Your task to perform on an android device: open app "DuckDuckGo Privacy Browser" (install if not already installed) and go to login screen Image 0: 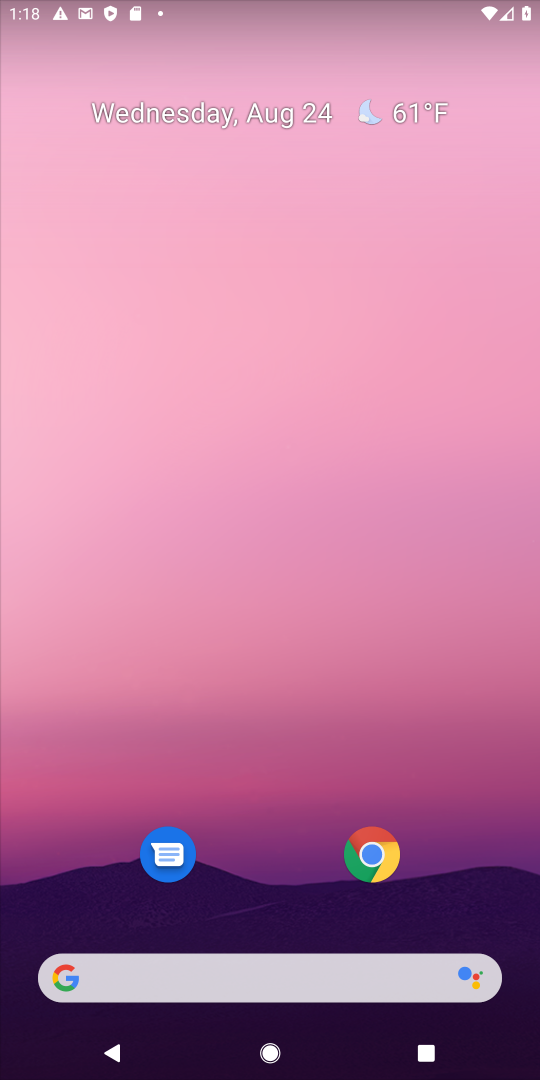
Step 0: press home button
Your task to perform on an android device: open app "DuckDuckGo Privacy Browser" (install if not already installed) and go to login screen Image 1: 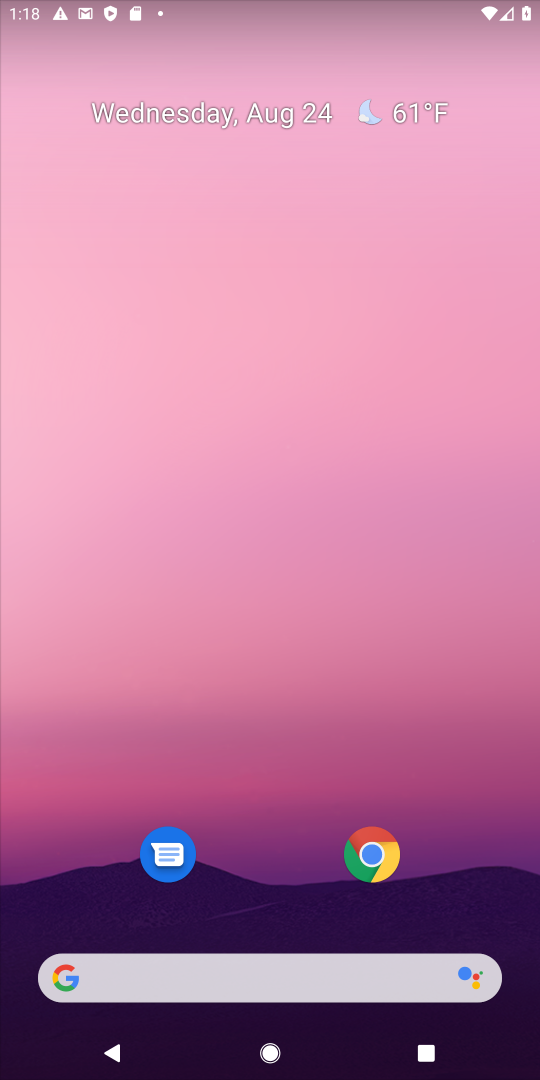
Step 1: drag from (485, 856) to (495, 180)
Your task to perform on an android device: open app "DuckDuckGo Privacy Browser" (install if not already installed) and go to login screen Image 2: 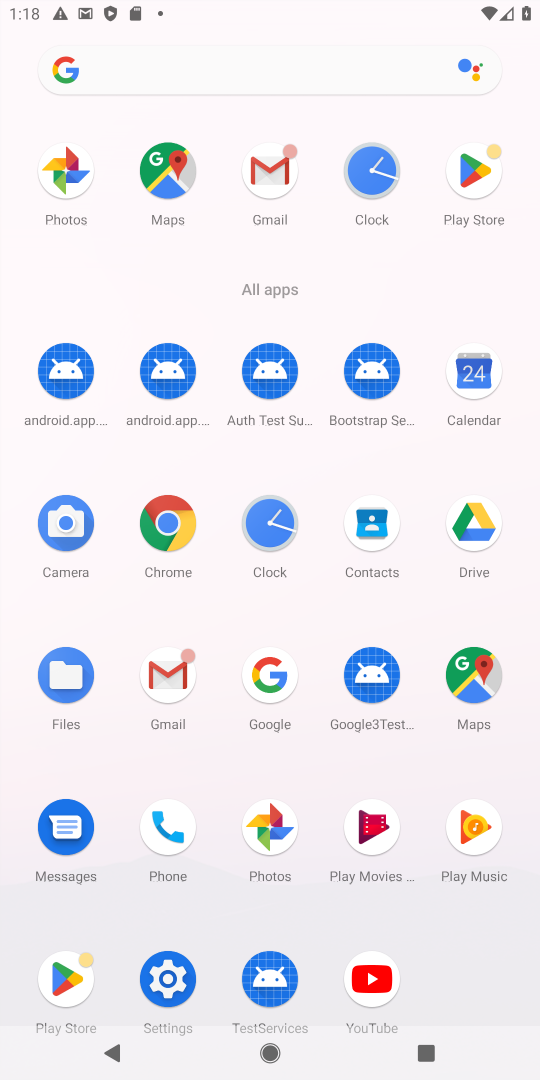
Step 2: click (480, 168)
Your task to perform on an android device: open app "DuckDuckGo Privacy Browser" (install if not already installed) and go to login screen Image 3: 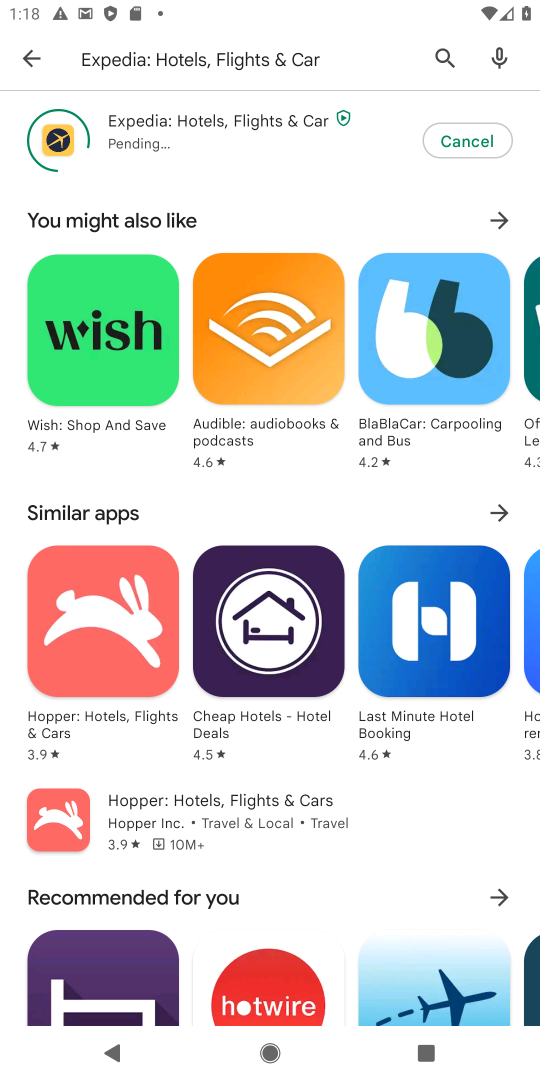
Step 3: press back button
Your task to perform on an android device: open app "DuckDuckGo Privacy Browser" (install if not already installed) and go to login screen Image 4: 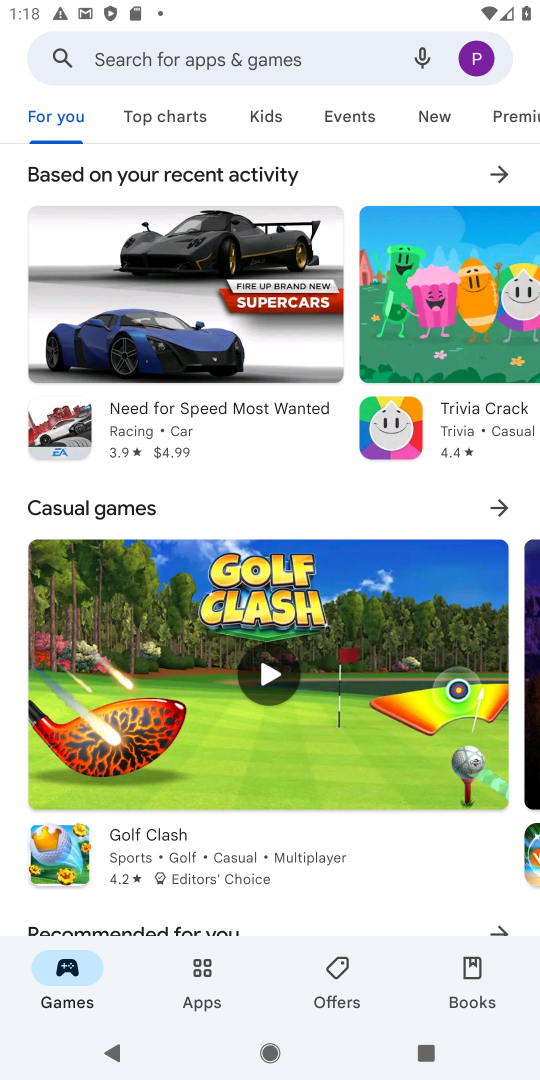
Step 4: click (289, 53)
Your task to perform on an android device: open app "DuckDuckGo Privacy Browser" (install if not already installed) and go to login screen Image 5: 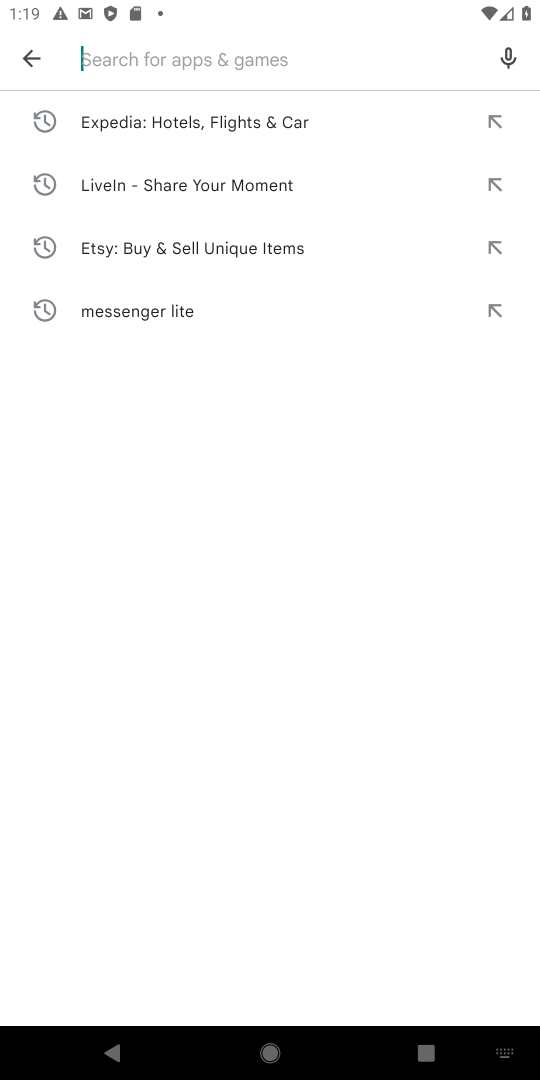
Step 5: press enter
Your task to perform on an android device: open app "DuckDuckGo Privacy Browser" (install if not already installed) and go to login screen Image 6: 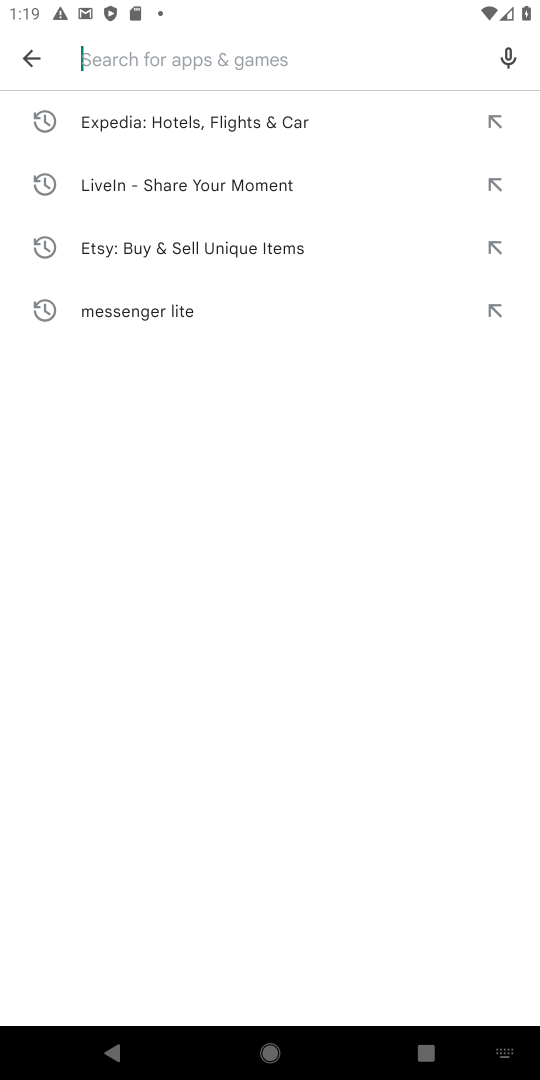
Step 6: type "DuckDuckGo Privacy Browser"
Your task to perform on an android device: open app "DuckDuckGo Privacy Browser" (install if not already installed) and go to login screen Image 7: 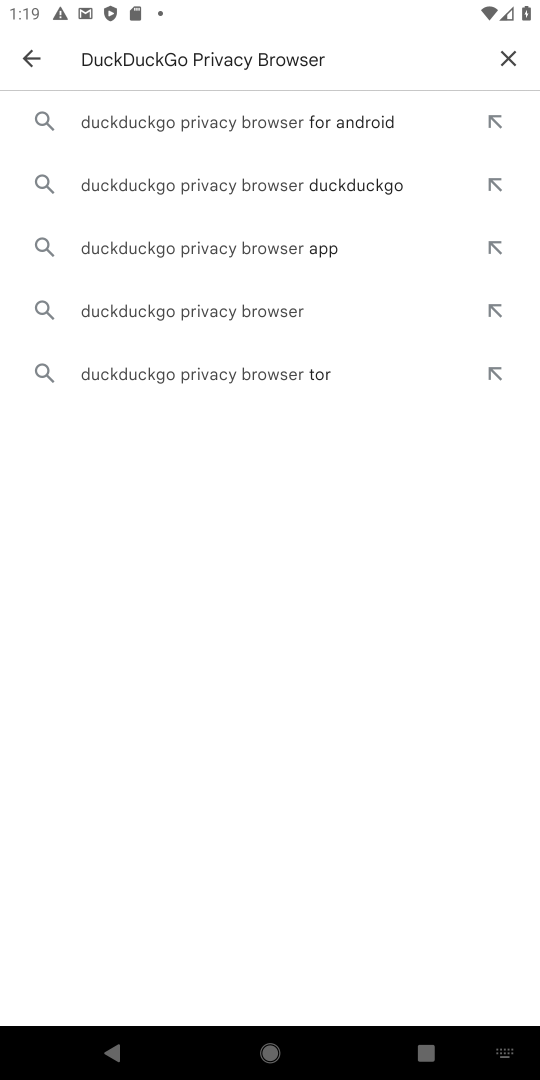
Step 7: click (273, 123)
Your task to perform on an android device: open app "DuckDuckGo Privacy Browser" (install if not already installed) and go to login screen Image 8: 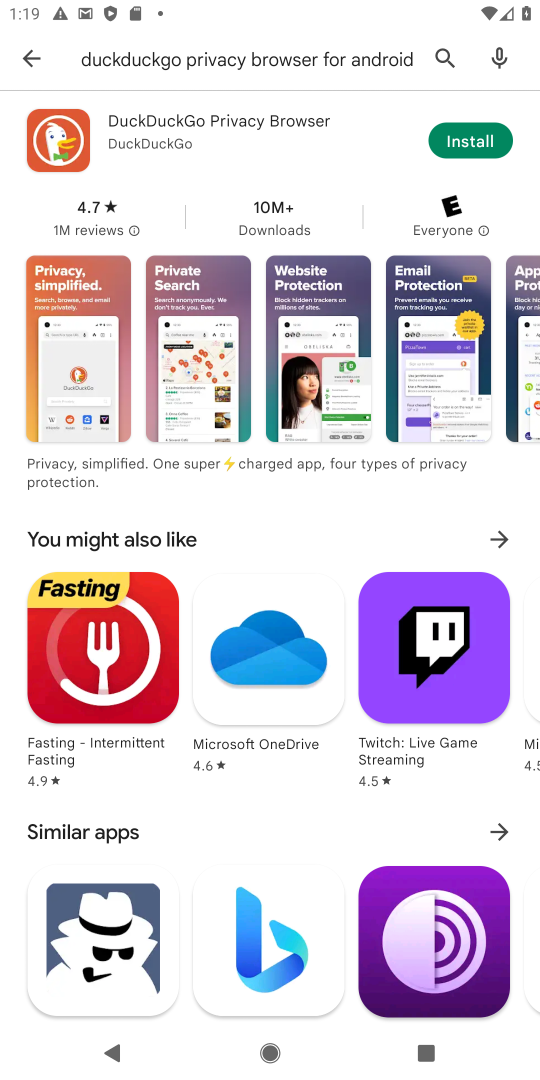
Step 8: click (476, 144)
Your task to perform on an android device: open app "DuckDuckGo Privacy Browser" (install if not already installed) and go to login screen Image 9: 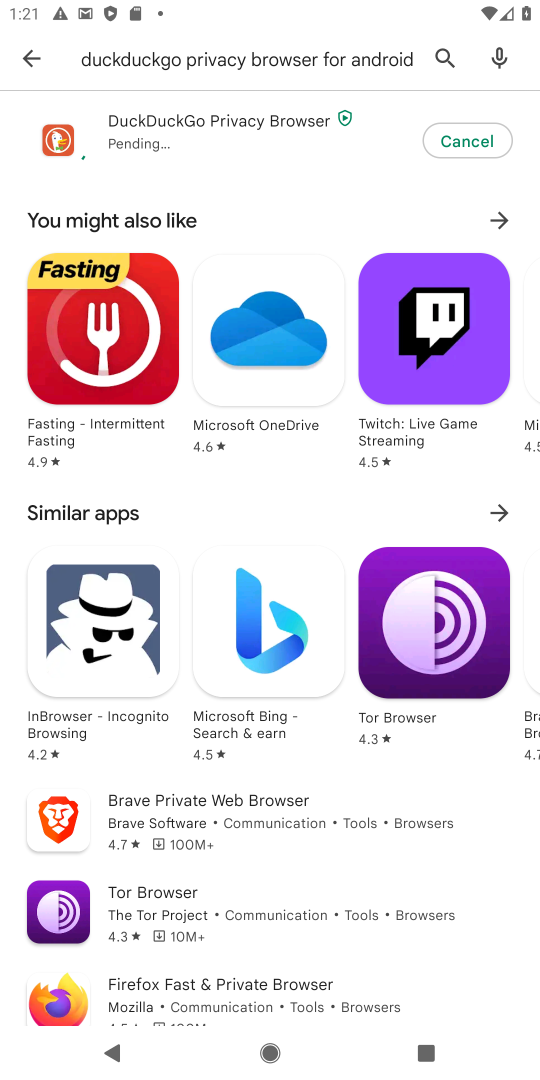
Step 9: task complete